Your task to perform on an android device: open the mobile data screen to see how much data has been used Image 0: 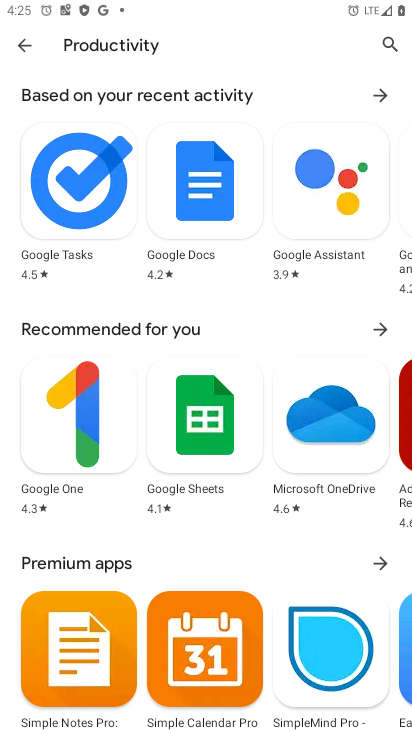
Step 0: press home button
Your task to perform on an android device: open the mobile data screen to see how much data has been used Image 1: 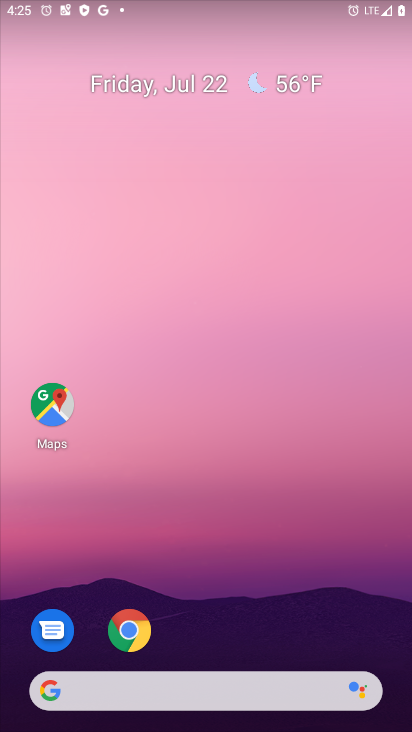
Step 1: drag from (211, 702) to (198, 199)
Your task to perform on an android device: open the mobile data screen to see how much data has been used Image 2: 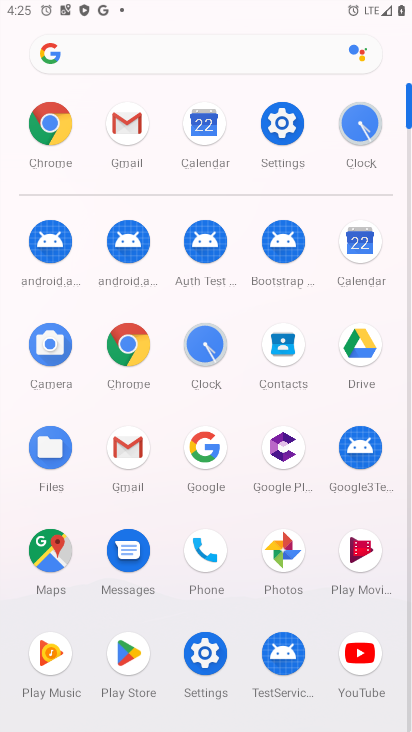
Step 2: click (298, 122)
Your task to perform on an android device: open the mobile data screen to see how much data has been used Image 3: 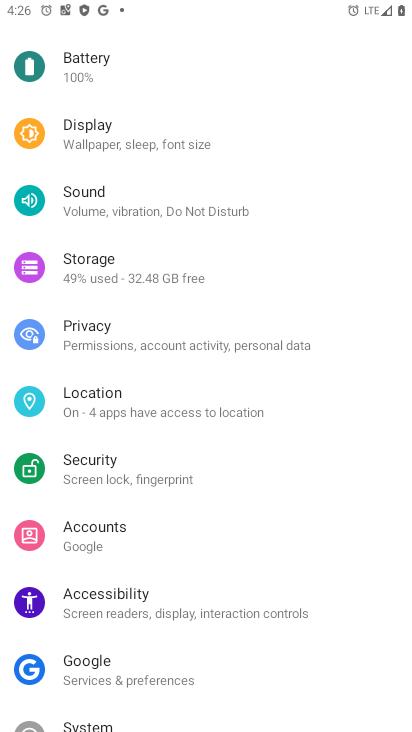
Step 3: drag from (111, 137) to (101, 377)
Your task to perform on an android device: open the mobile data screen to see how much data has been used Image 4: 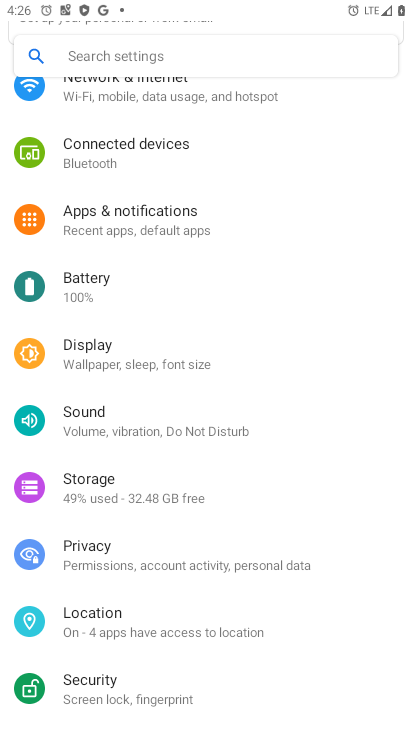
Step 4: drag from (87, 199) to (68, 484)
Your task to perform on an android device: open the mobile data screen to see how much data has been used Image 5: 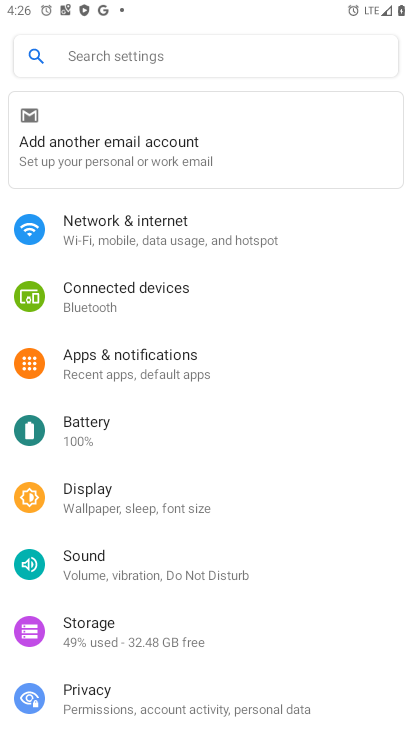
Step 5: click (144, 233)
Your task to perform on an android device: open the mobile data screen to see how much data has been used Image 6: 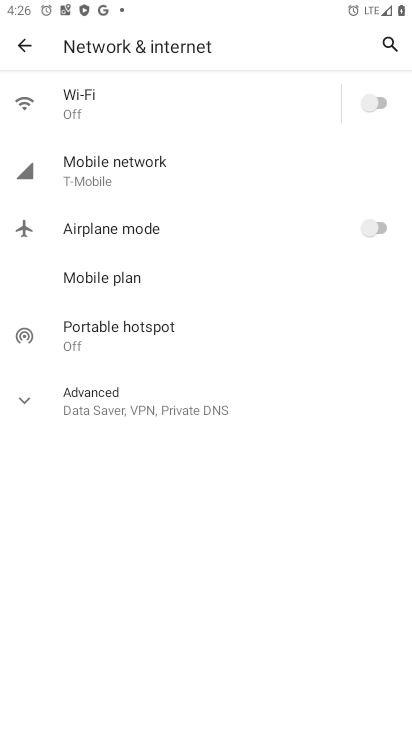
Step 6: click (114, 182)
Your task to perform on an android device: open the mobile data screen to see how much data has been used Image 7: 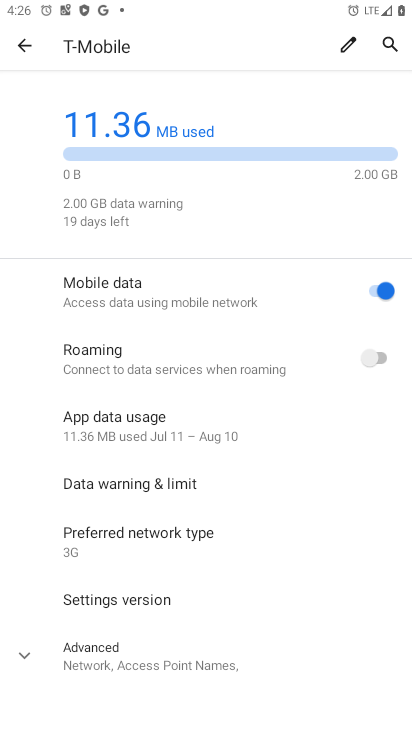
Step 7: task complete